Your task to perform on an android device: Go to accessibility settings Image 0: 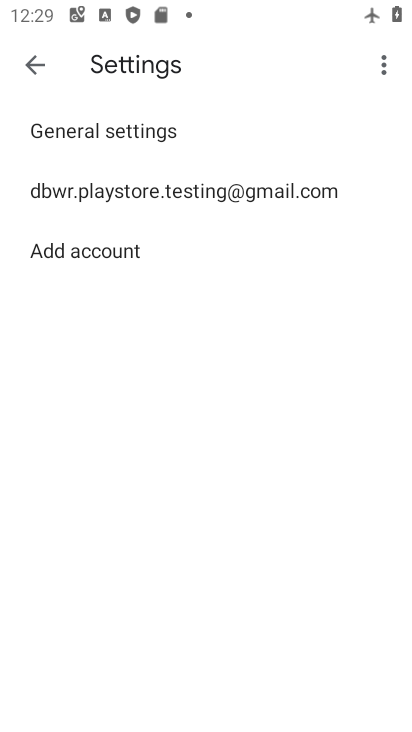
Step 0: press home button
Your task to perform on an android device: Go to accessibility settings Image 1: 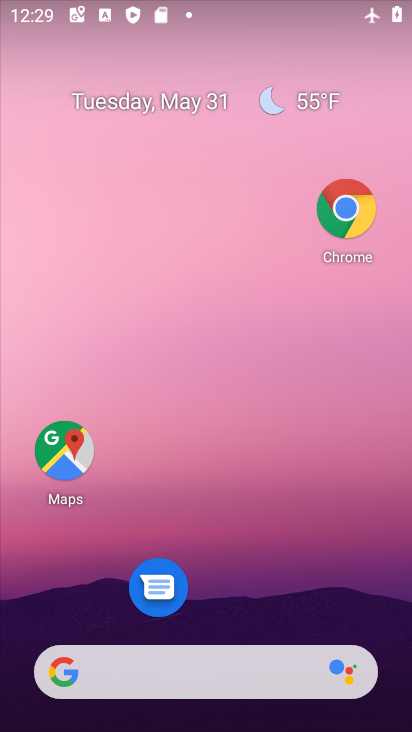
Step 1: drag from (259, 598) to (325, 131)
Your task to perform on an android device: Go to accessibility settings Image 2: 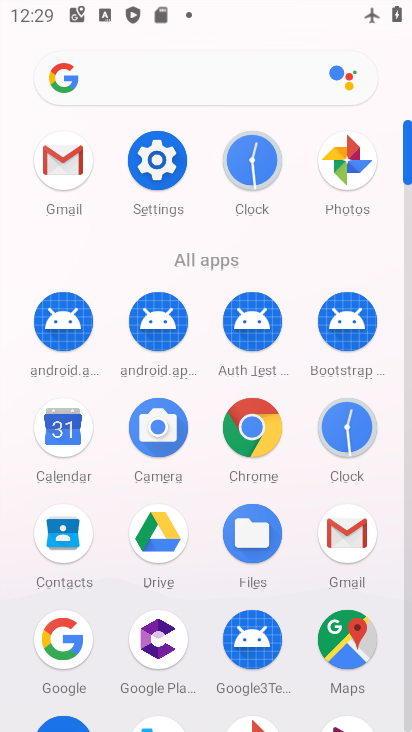
Step 2: click (117, 159)
Your task to perform on an android device: Go to accessibility settings Image 3: 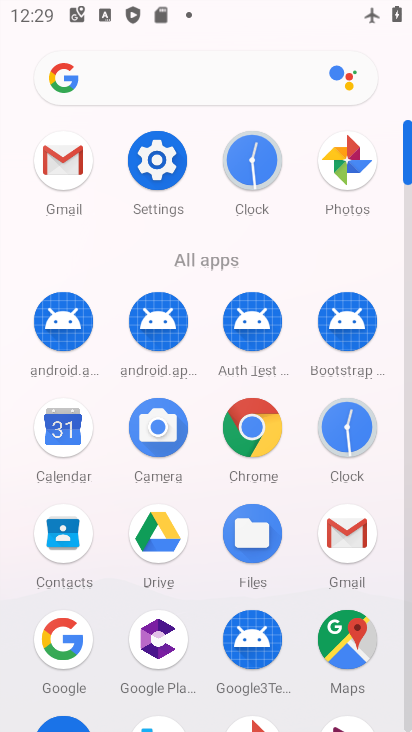
Step 3: click (135, 160)
Your task to perform on an android device: Go to accessibility settings Image 4: 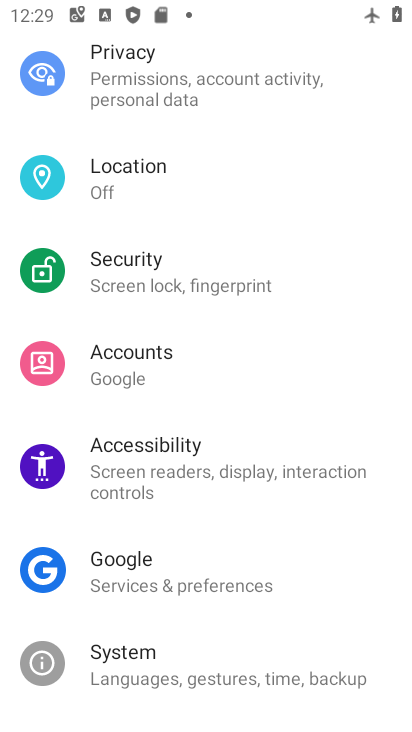
Step 4: click (144, 165)
Your task to perform on an android device: Go to accessibility settings Image 5: 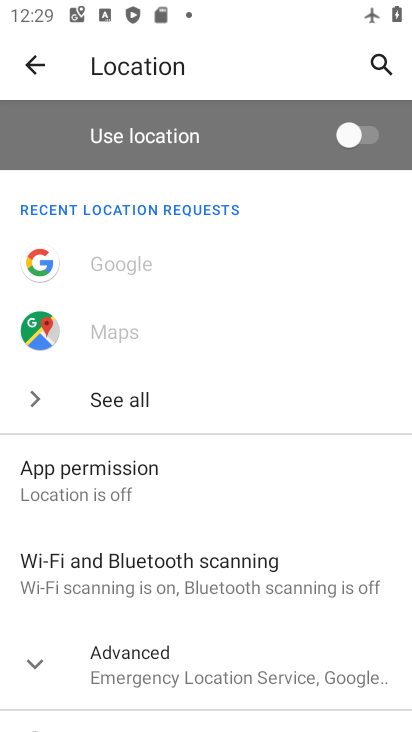
Step 5: click (43, 54)
Your task to perform on an android device: Go to accessibility settings Image 6: 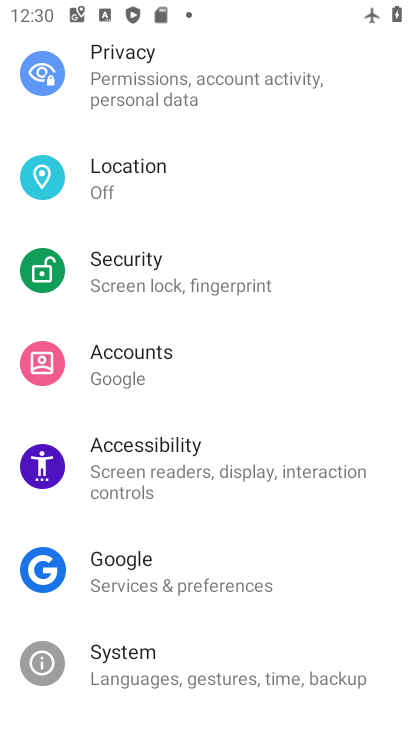
Step 6: click (163, 452)
Your task to perform on an android device: Go to accessibility settings Image 7: 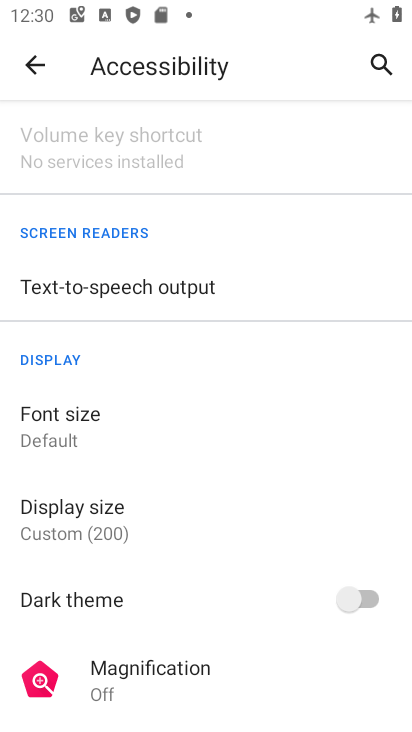
Step 7: task complete